Your task to perform on an android device: Open wifi settings Image 0: 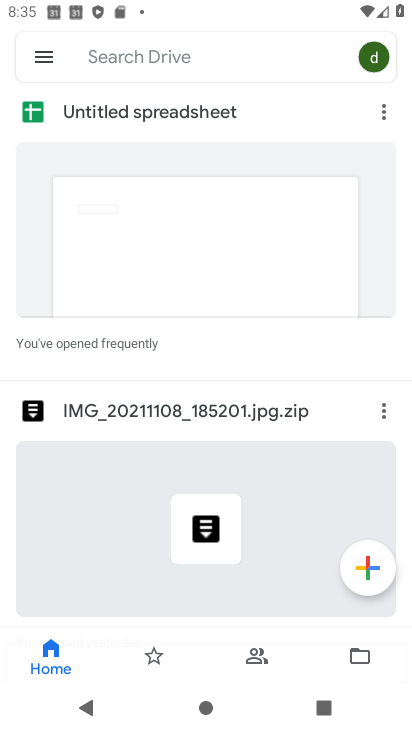
Step 0: press home button
Your task to perform on an android device: Open wifi settings Image 1: 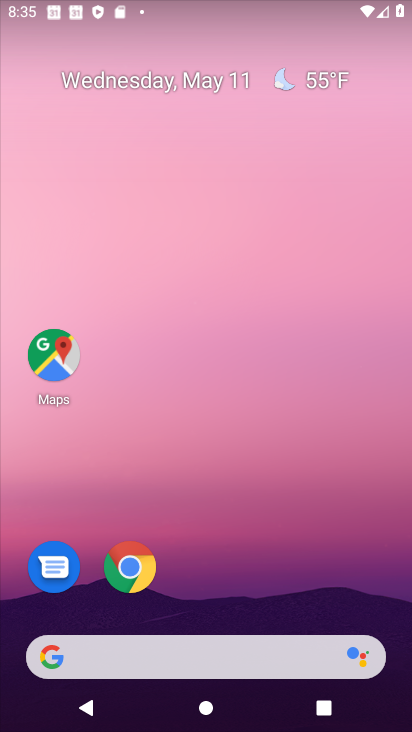
Step 1: drag from (223, 597) to (326, 11)
Your task to perform on an android device: Open wifi settings Image 2: 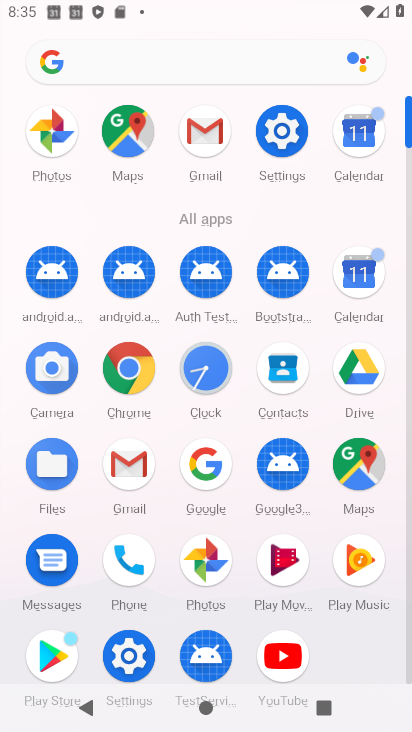
Step 2: click (282, 164)
Your task to perform on an android device: Open wifi settings Image 3: 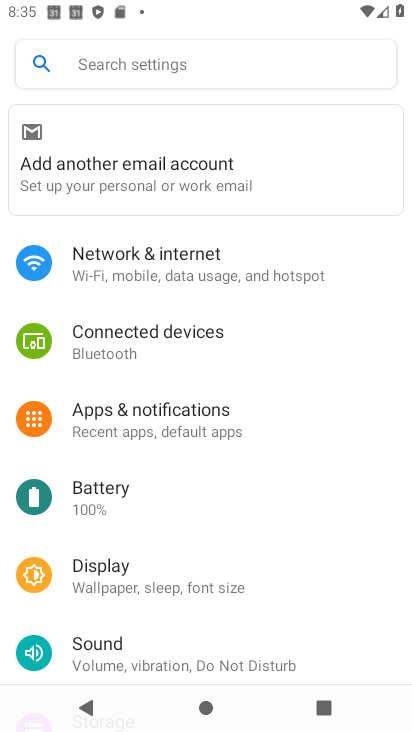
Step 3: click (176, 269)
Your task to perform on an android device: Open wifi settings Image 4: 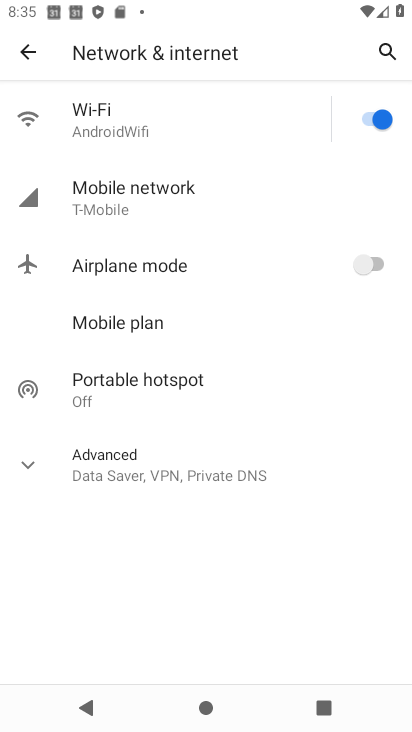
Step 4: click (191, 133)
Your task to perform on an android device: Open wifi settings Image 5: 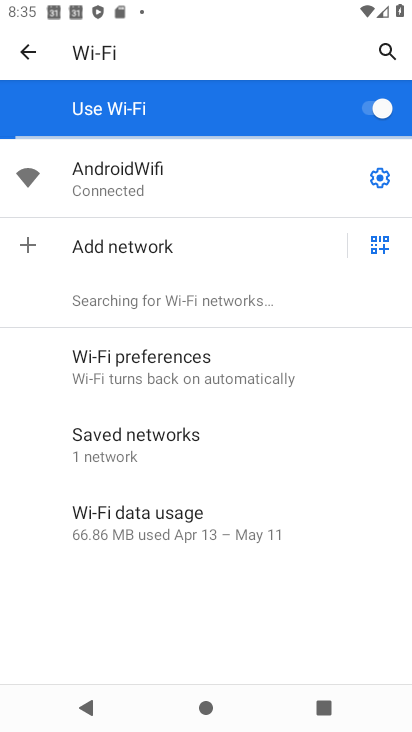
Step 5: task complete